Your task to perform on an android device: manage bookmarks in the chrome app Image 0: 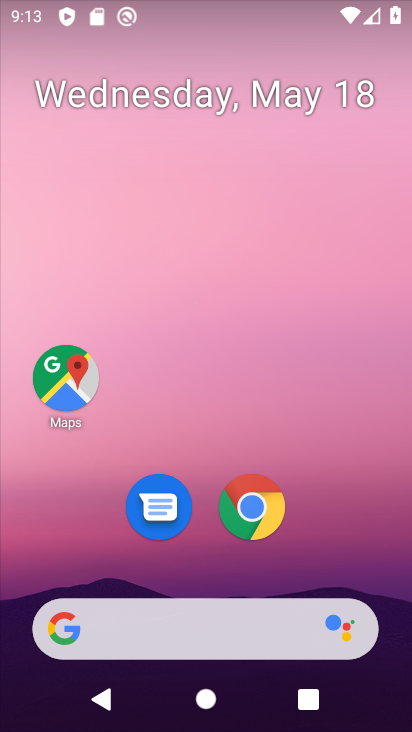
Step 0: drag from (394, 534) to (283, 164)
Your task to perform on an android device: manage bookmarks in the chrome app Image 1: 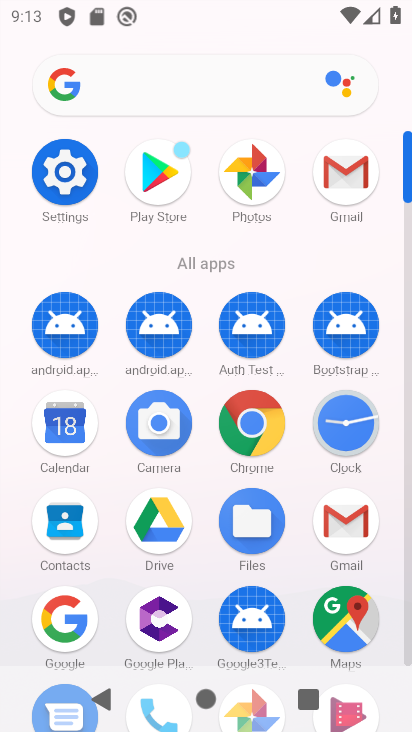
Step 1: click (238, 434)
Your task to perform on an android device: manage bookmarks in the chrome app Image 2: 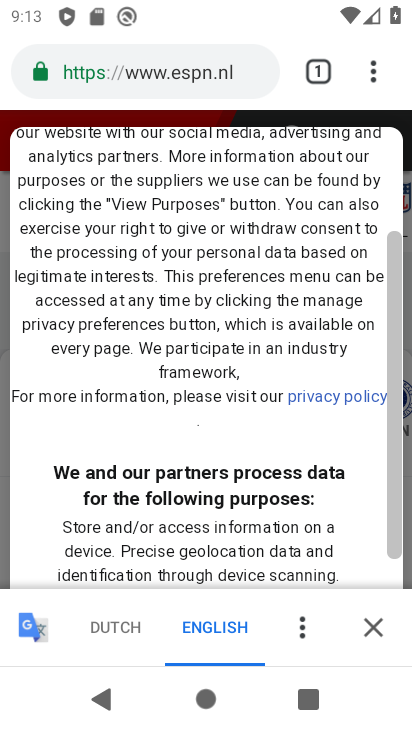
Step 2: click (379, 99)
Your task to perform on an android device: manage bookmarks in the chrome app Image 3: 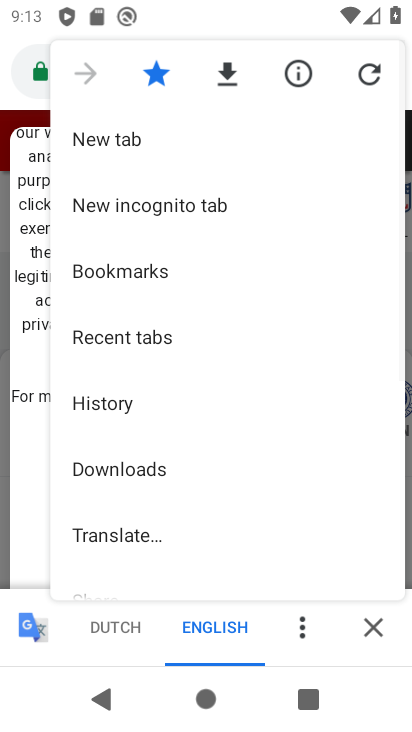
Step 3: click (145, 265)
Your task to perform on an android device: manage bookmarks in the chrome app Image 4: 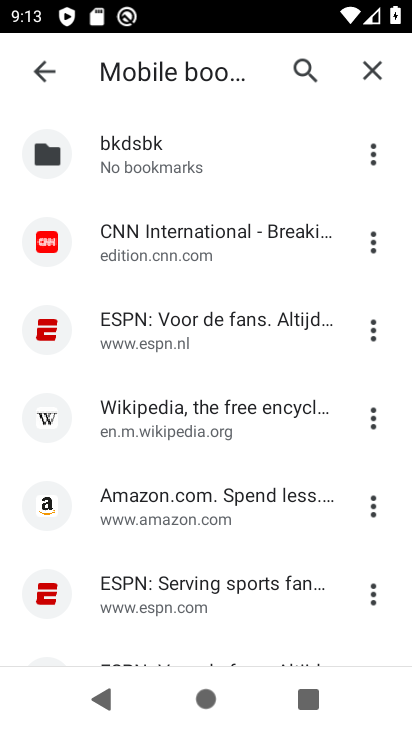
Step 4: click (375, 239)
Your task to perform on an android device: manage bookmarks in the chrome app Image 5: 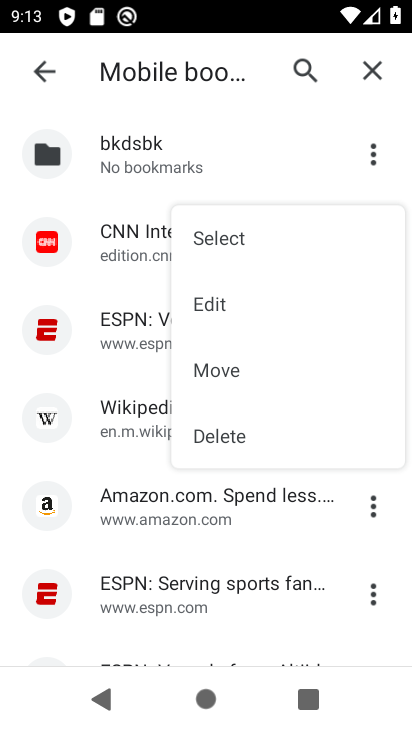
Step 5: click (252, 433)
Your task to perform on an android device: manage bookmarks in the chrome app Image 6: 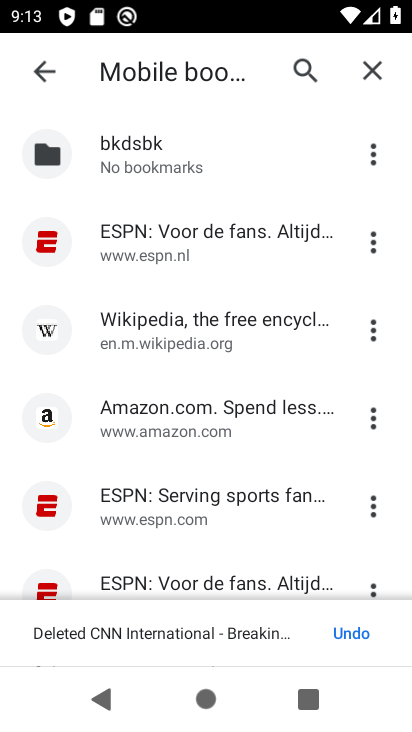
Step 6: task complete